Your task to perform on an android device: change alarm snooze length Image 0: 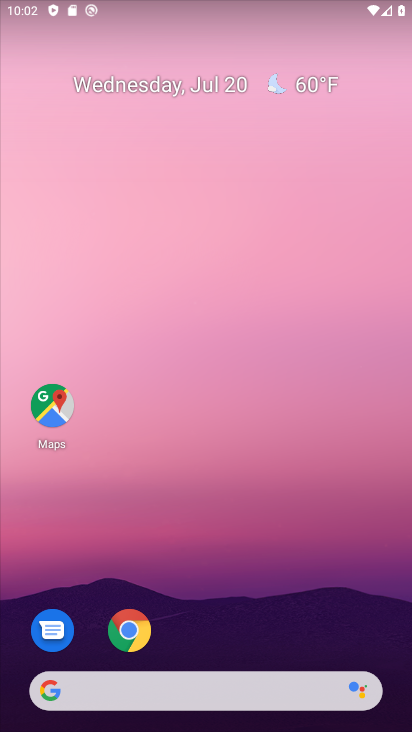
Step 0: drag from (339, 509) to (311, 0)
Your task to perform on an android device: change alarm snooze length Image 1: 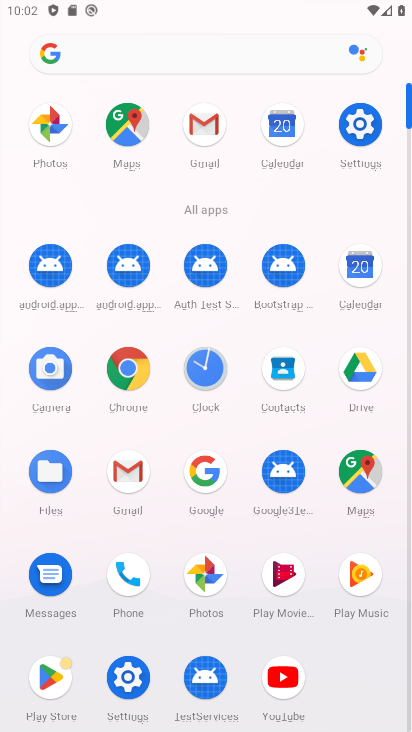
Step 1: click (212, 361)
Your task to perform on an android device: change alarm snooze length Image 2: 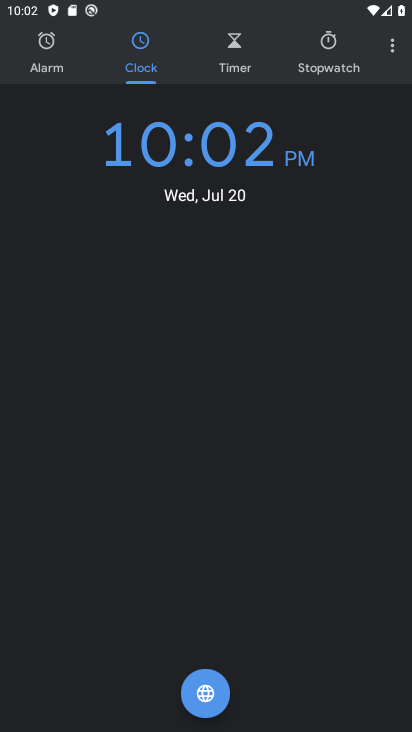
Step 2: click (386, 49)
Your task to perform on an android device: change alarm snooze length Image 3: 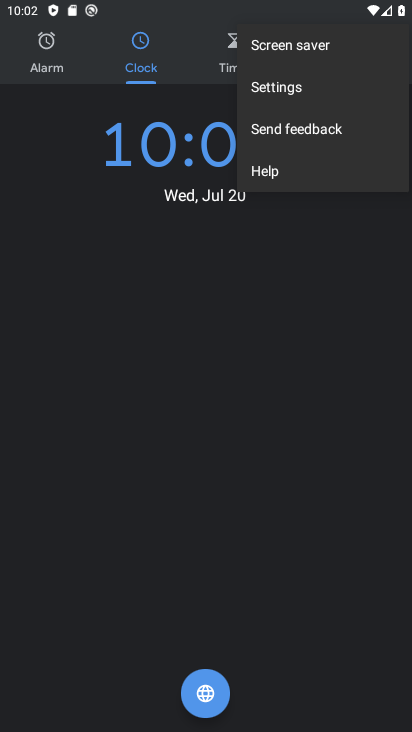
Step 3: click (279, 89)
Your task to perform on an android device: change alarm snooze length Image 4: 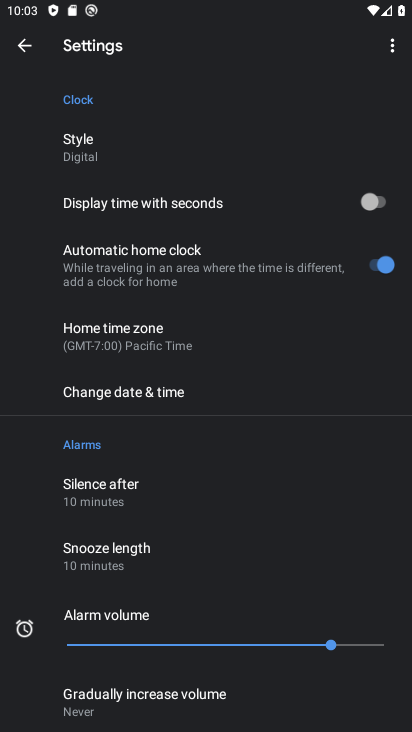
Step 4: click (90, 564)
Your task to perform on an android device: change alarm snooze length Image 5: 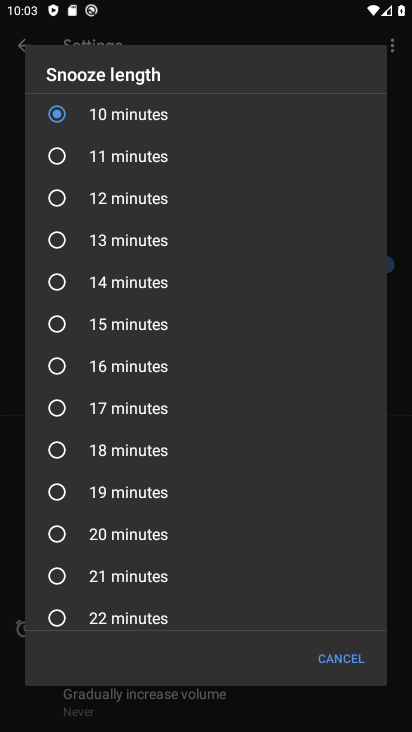
Step 5: click (120, 316)
Your task to perform on an android device: change alarm snooze length Image 6: 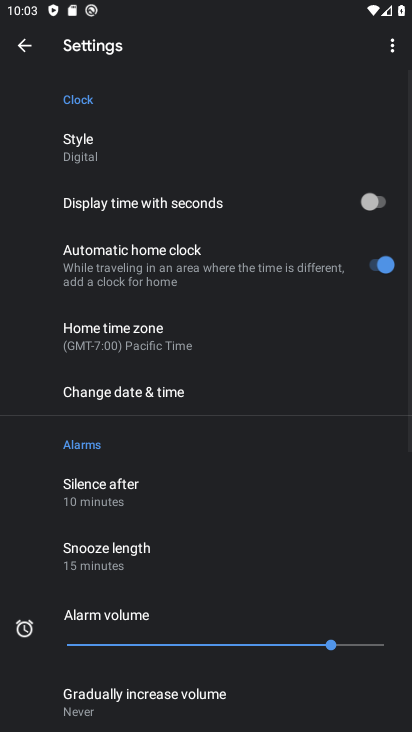
Step 6: task complete